Your task to perform on an android device: search for starred emails in the gmail app Image 0: 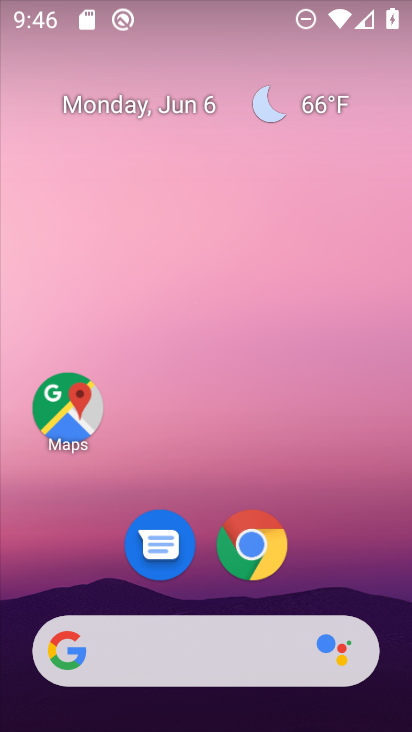
Step 0: drag from (207, 592) to (110, 258)
Your task to perform on an android device: search for starred emails in the gmail app Image 1: 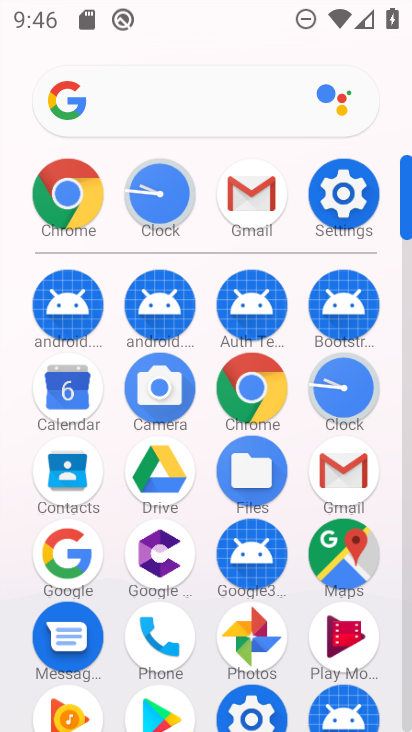
Step 1: click (238, 205)
Your task to perform on an android device: search for starred emails in the gmail app Image 2: 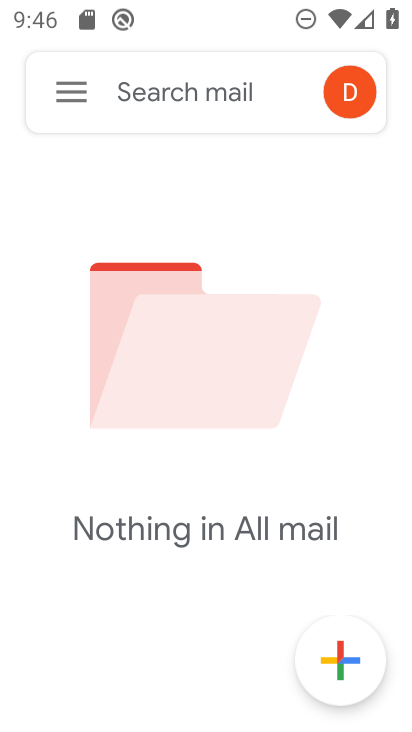
Step 2: click (54, 98)
Your task to perform on an android device: search for starred emails in the gmail app Image 3: 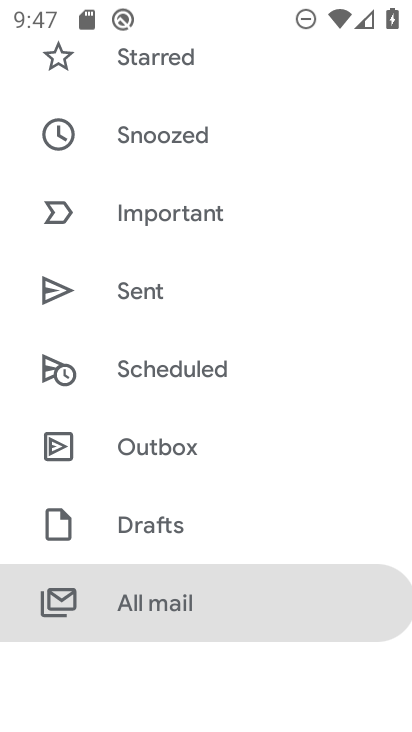
Step 3: click (125, 75)
Your task to perform on an android device: search for starred emails in the gmail app Image 4: 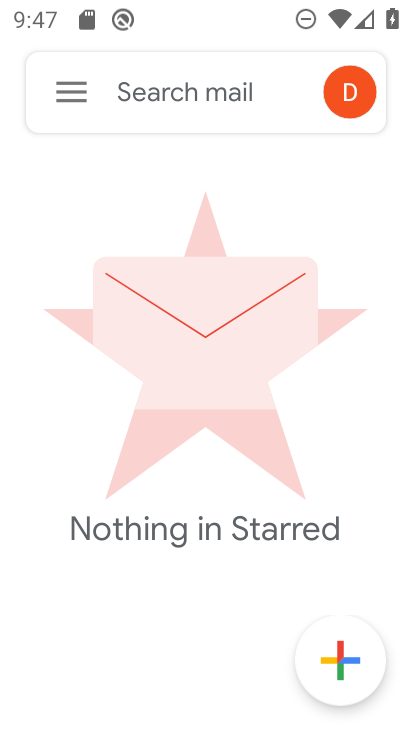
Step 4: task complete